Your task to perform on an android device: turn notification dots on Image 0: 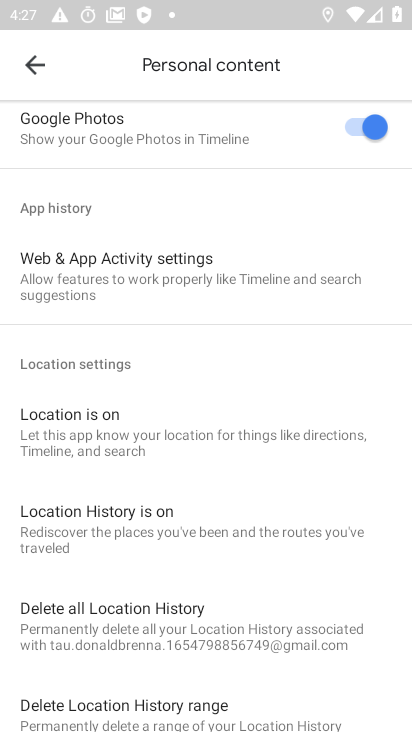
Step 0: press home button
Your task to perform on an android device: turn notification dots on Image 1: 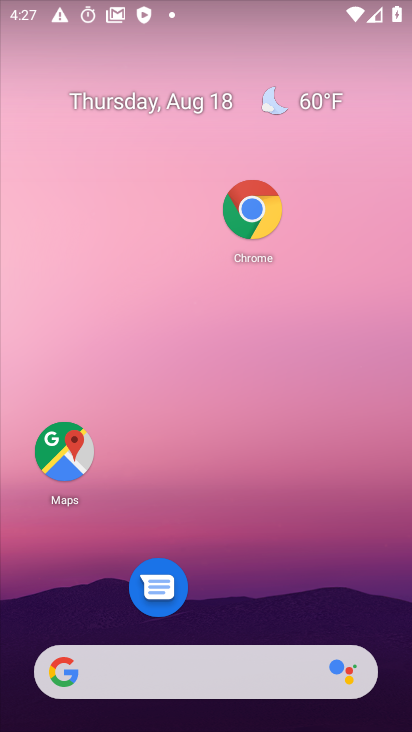
Step 1: drag from (314, 591) to (336, 68)
Your task to perform on an android device: turn notification dots on Image 2: 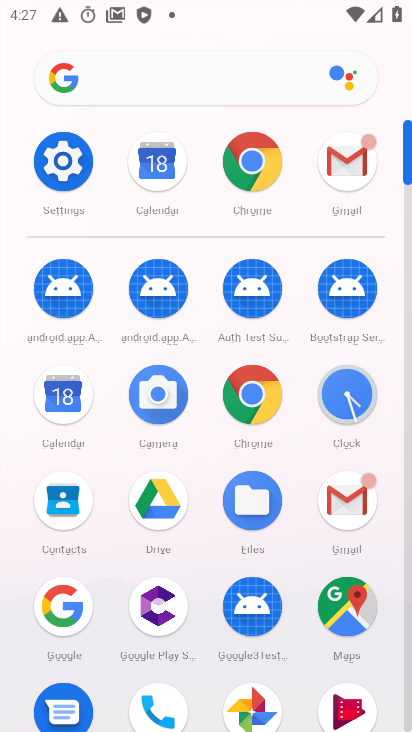
Step 2: click (58, 156)
Your task to perform on an android device: turn notification dots on Image 3: 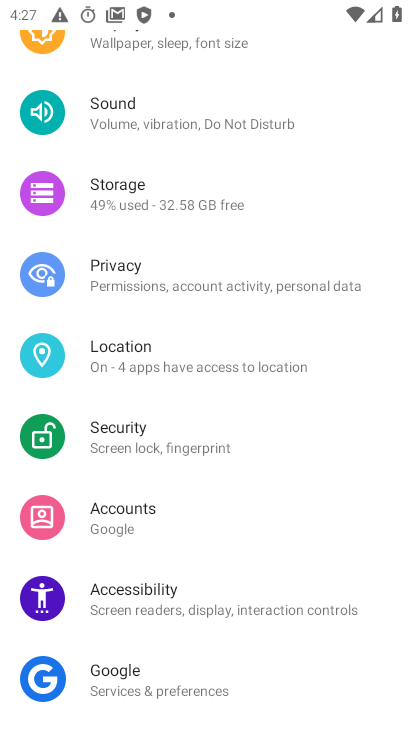
Step 3: drag from (257, 658) to (296, 190)
Your task to perform on an android device: turn notification dots on Image 4: 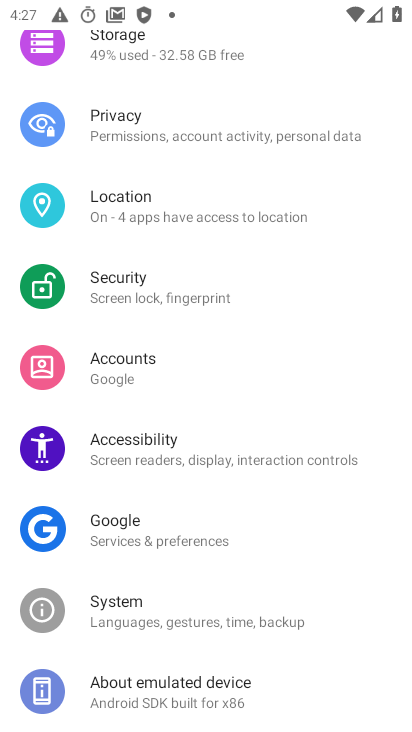
Step 4: drag from (270, 114) to (264, 615)
Your task to perform on an android device: turn notification dots on Image 5: 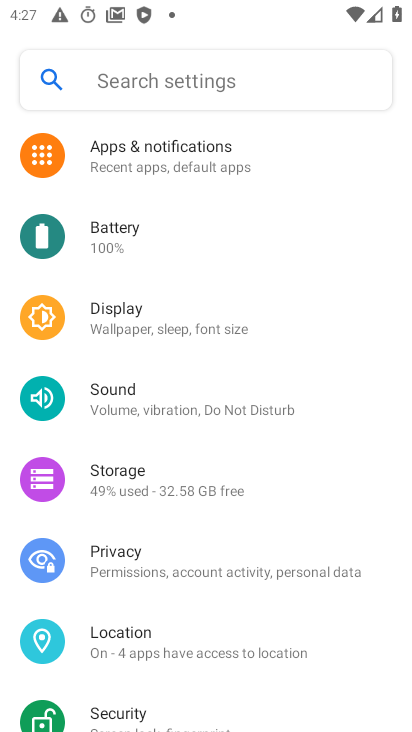
Step 5: click (212, 164)
Your task to perform on an android device: turn notification dots on Image 6: 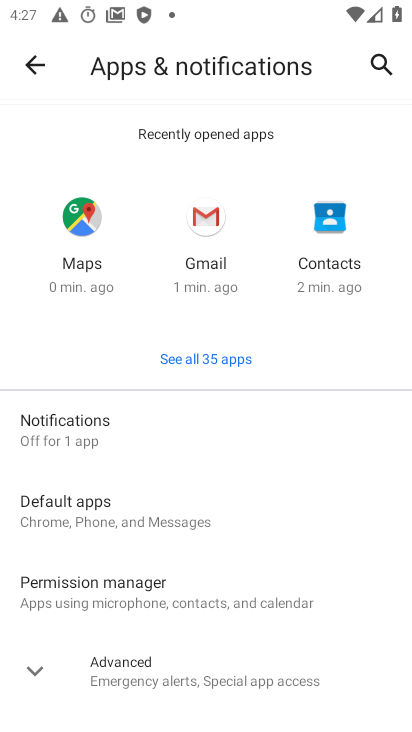
Step 6: drag from (307, 566) to (352, 178)
Your task to perform on an android device: turn notification dots on Image 7: 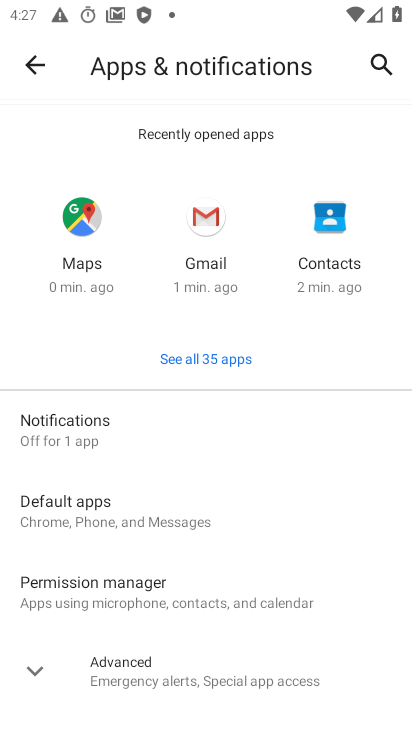
Step 7: click (252, 665)
Your task to perform on an android device: turn notification dots on Image 8: 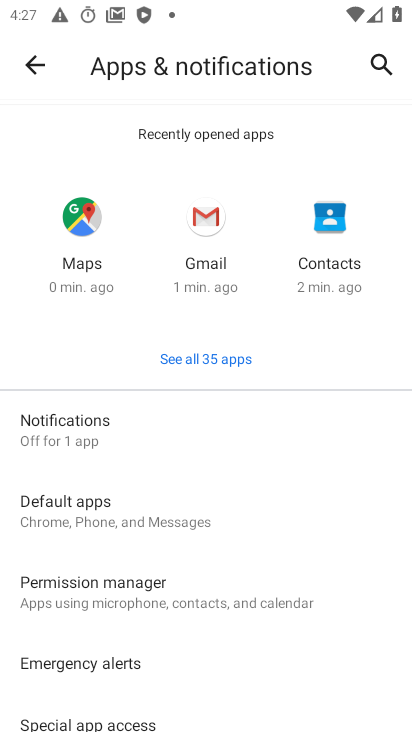
Step 8: drag from (343, 582) to (5, 379)
Your task to perform on an android device: turn notification dots on Image 9: 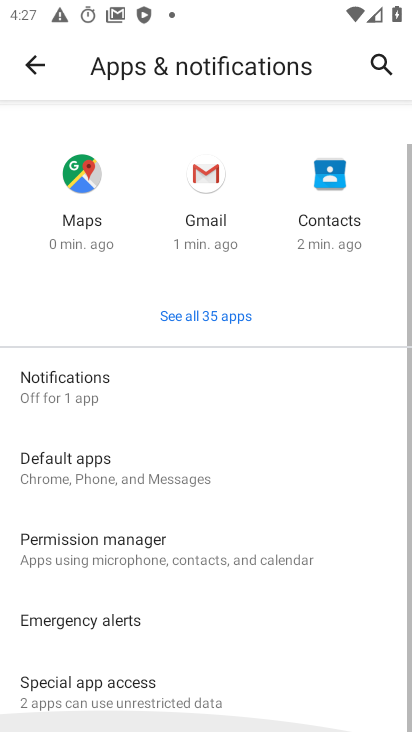
Step 9: click (13, 379)
Your task to perform on an android device: turn notification dots on Image 10: 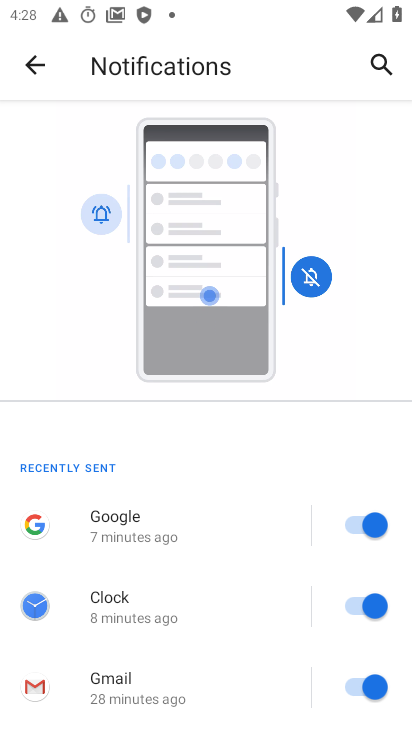
Step 10: drag from (251, 696) to (267, 195)
Your task to perform on an android device: turn notification dots on Image 11: 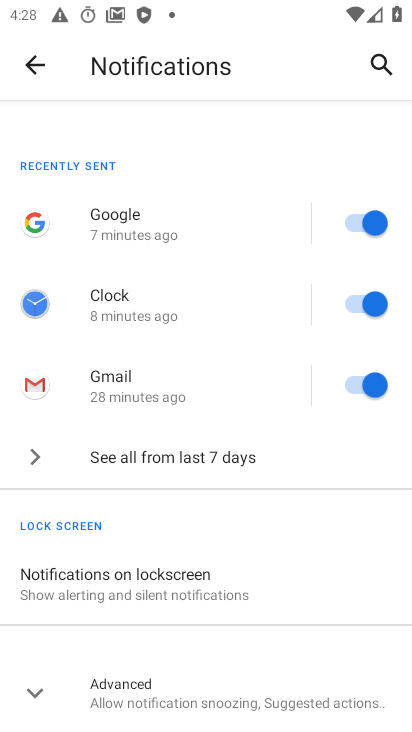
Step 11: click (148, 693)
Your task to perform on an android device: turn notification dots on Image 12: 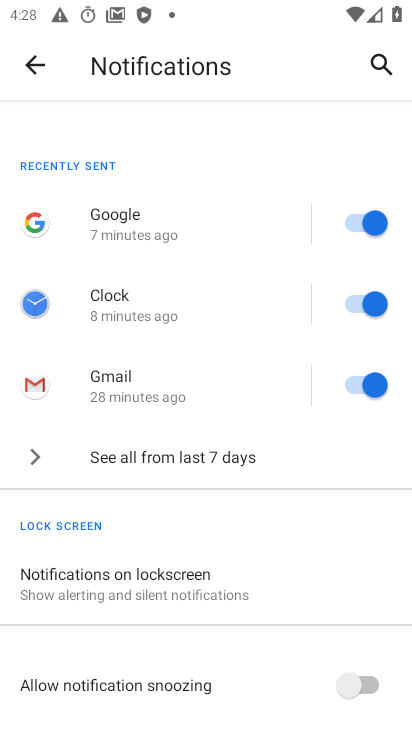
Step 12: task complete